Your task to perform on an android device: move an email to a new category in the gmail app Image 0: 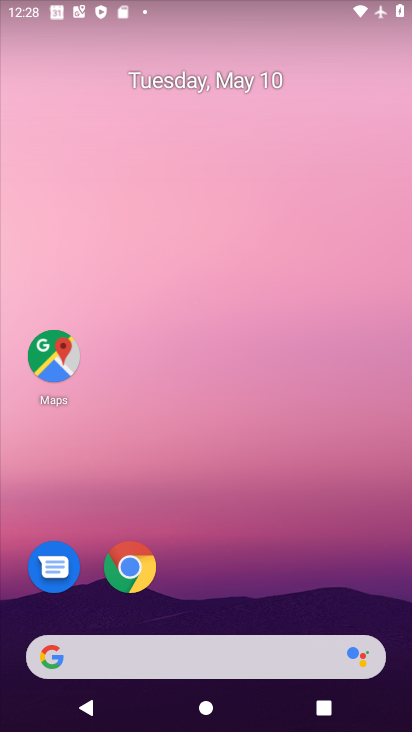
Step 0: drag from (377, 617) to (274, 161)
Your task to perform on an android device: move an email to a new category in the gmail app Image 1: 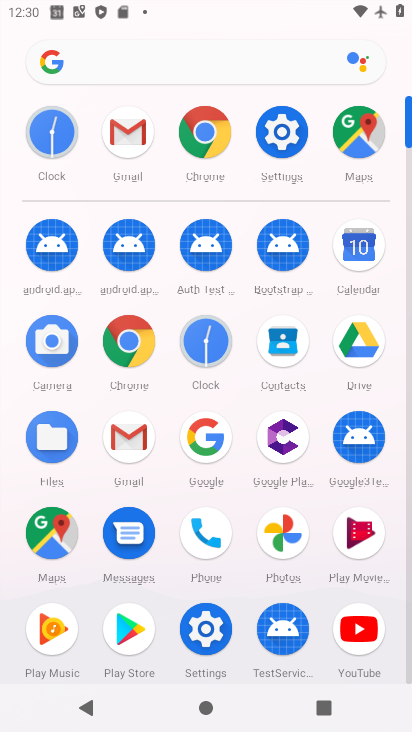
Step 1: click (128, 456)
Your task to perform on an android device: move an email to a new category in the gmail app Image 2: 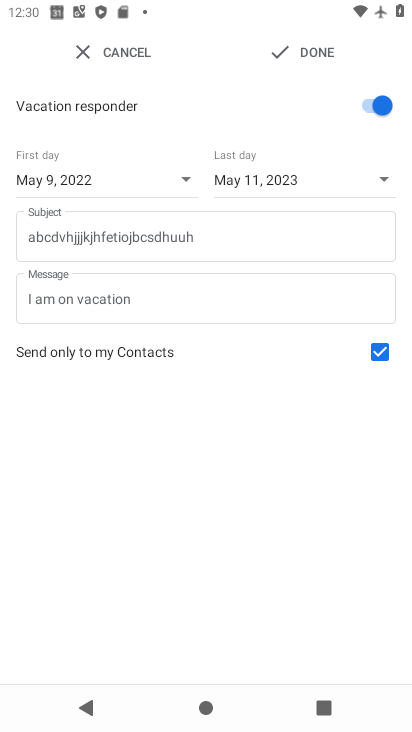
Step 2: task complete